Your task to perform on an android device: Search for sushi restaurants on Maps Image 0: 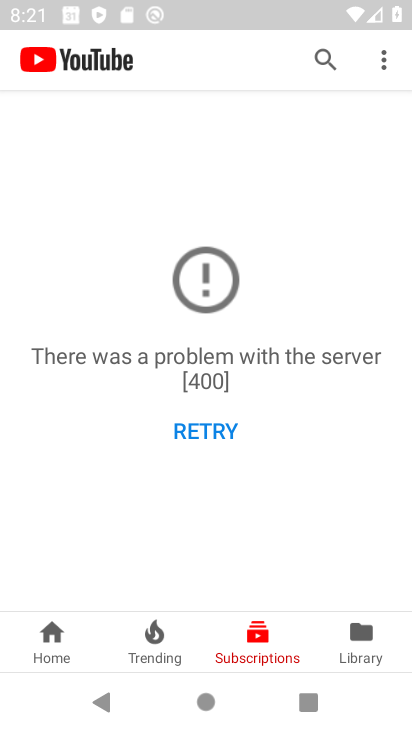
Step 0: press home button
Your task to perform on an android device: Search for sushi restaurants on Maps Image 1: 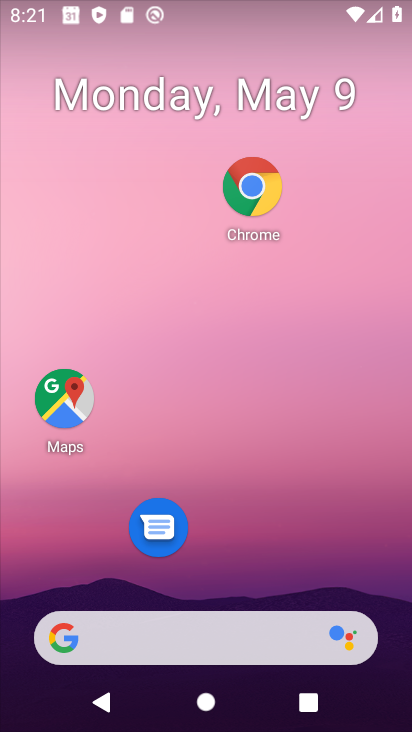
Step 1: click (65, 398)
Your task to perform on an android device: Search for sushi restaurants on Maps Image 2: 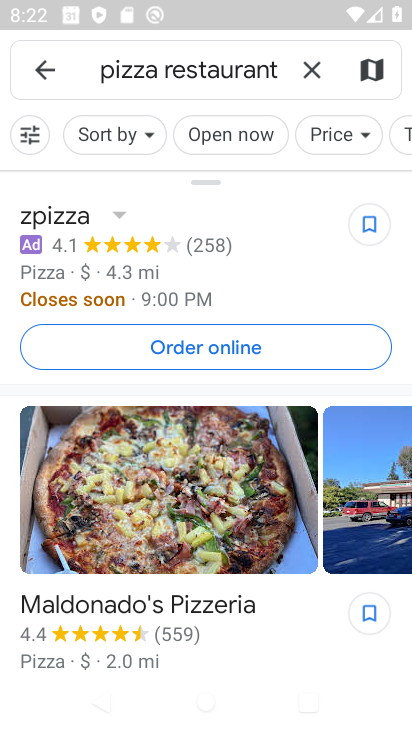
Step 2: click (307, 71)
Your task to perform on an android device: Search for sushi restaurants on Maps Image 3: 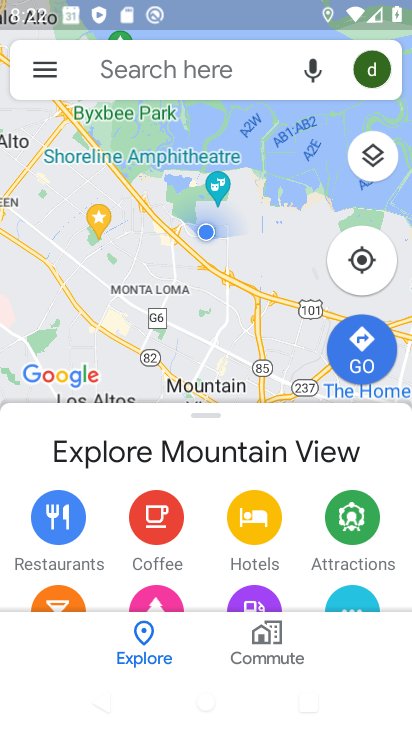
Step 3: click (117, 58)
Your task to perform on an android device: Search for sushi restaurants on Maps Image 4: 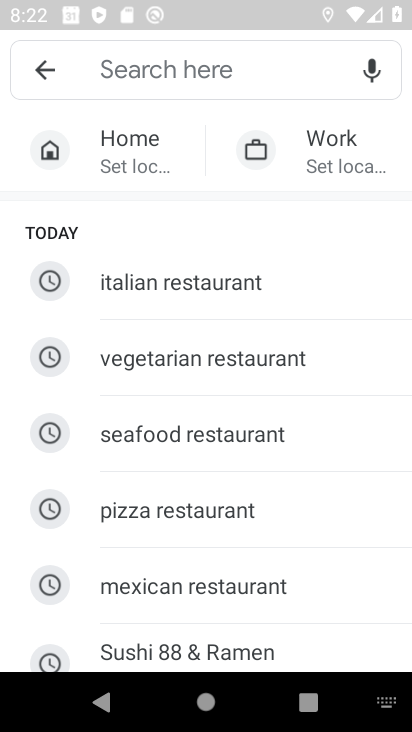
Step 4: type "sushi"
Your task to perform on an android device: Search for sushi restaurants on Maps Image 5: 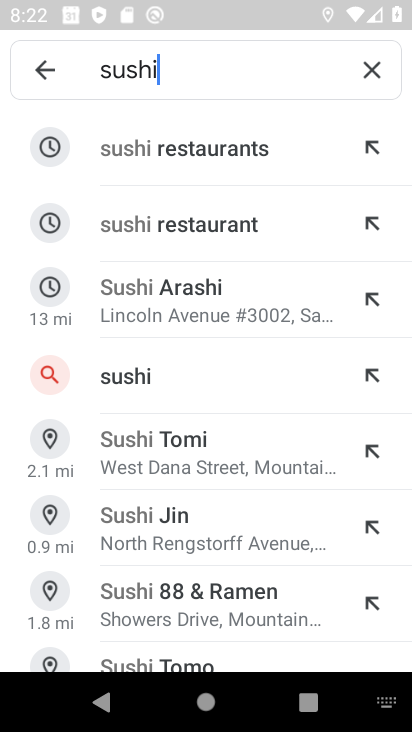
Step 5: click (191, 150)
Your task to perform on an android device: Search for sushi restaurants on Maps Image 6: 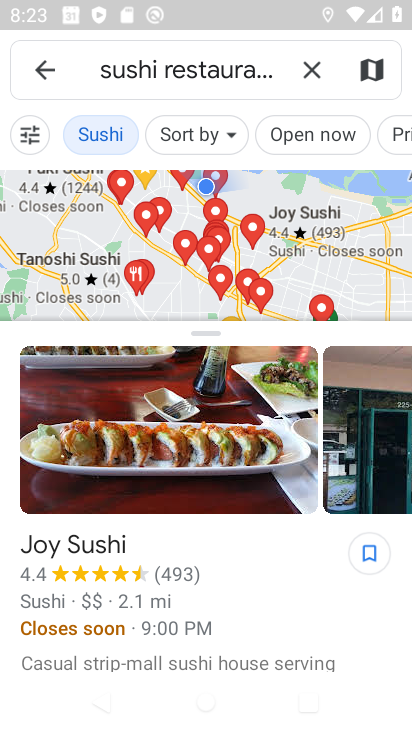
Step 6: task complete